Your task to perform on an android device: open the mobile data screen to see how much data has been used Image 0: 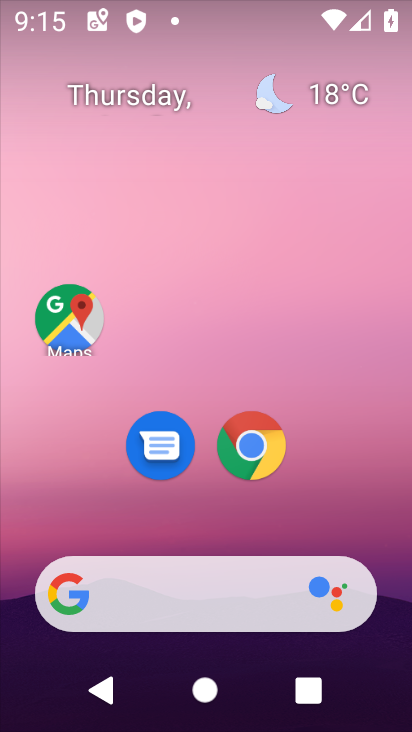
Step 0: drag from (392, 560) to (315, 160)
Your task to perform on an android device: open the mobile data screen to see how much data has been used Image 1: 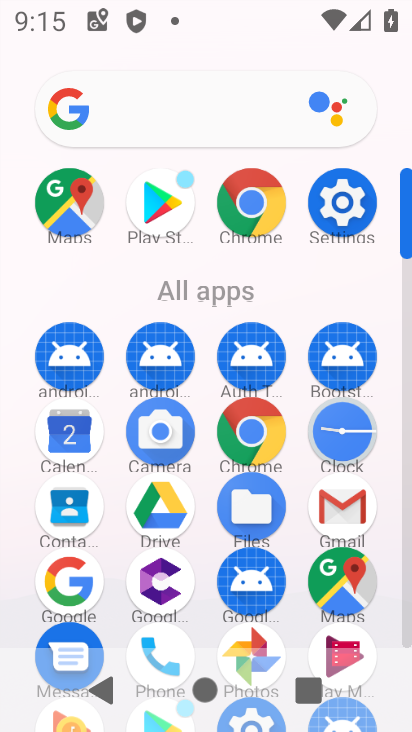
Step 1: click (348, 203)
Your task to perform on an android device: open the mobile data screen to see how much data has been used Image 2: 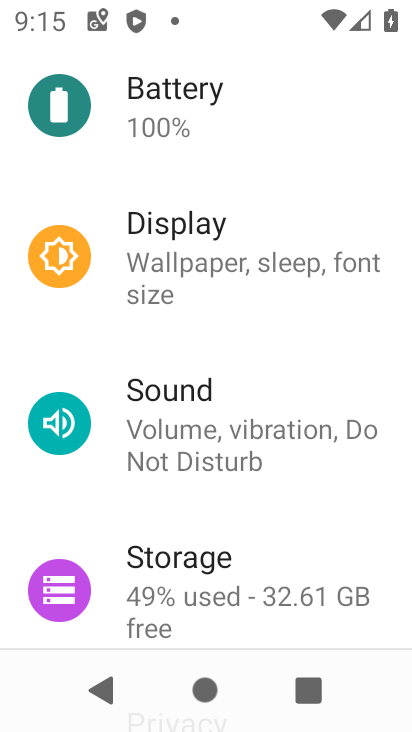
Step 2: drag from (265, 187) to (263, 611)
Your task to perform on an android device: open the mobile data screen to see how much data has been used Image 3: 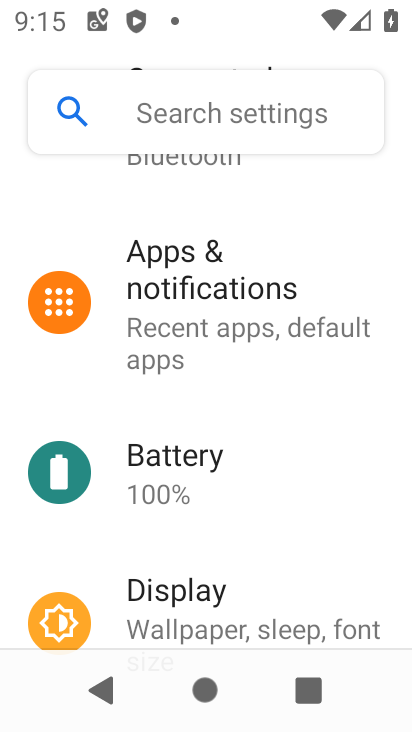
Step 3: drag from (211, 204) to (202, 520)
Your task to perform on an android device: open the mobile data screen to see how much data has been used Image 4: 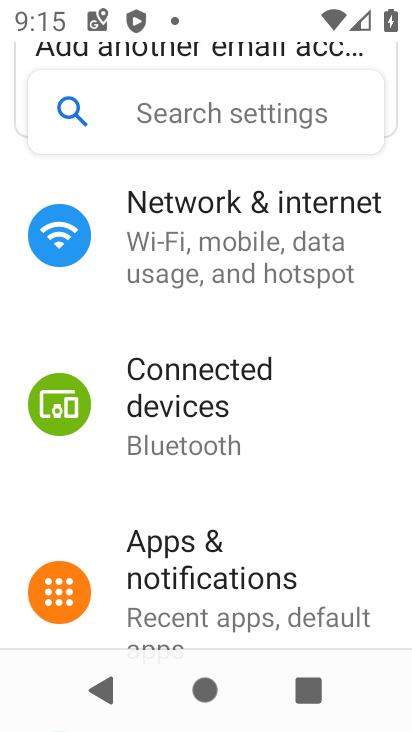
Step 4: click (202, 274)
Your task to perform on an android device: open the mobile data screen to see how much data has been used Image 5: 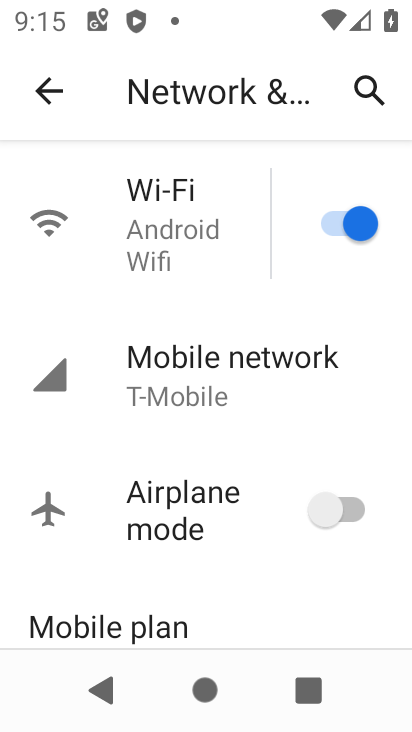
Step 5: click (236, 381)
Your task to perform on an android device: open the mobile data screen to see how much data has been used Image 6: 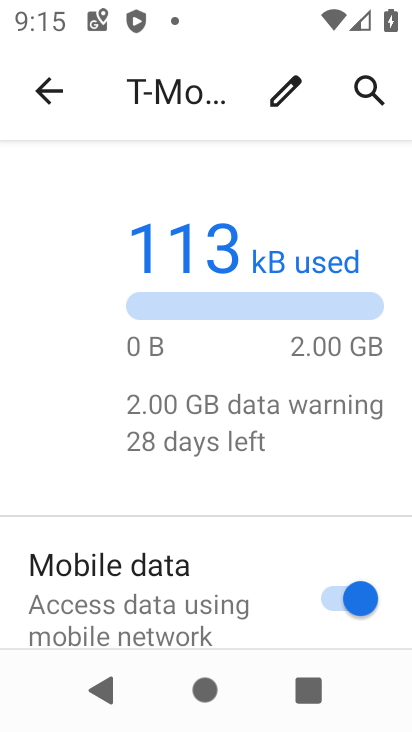
Step 6: task complete